Your task to perform on an android device: turn off location history Image 0: 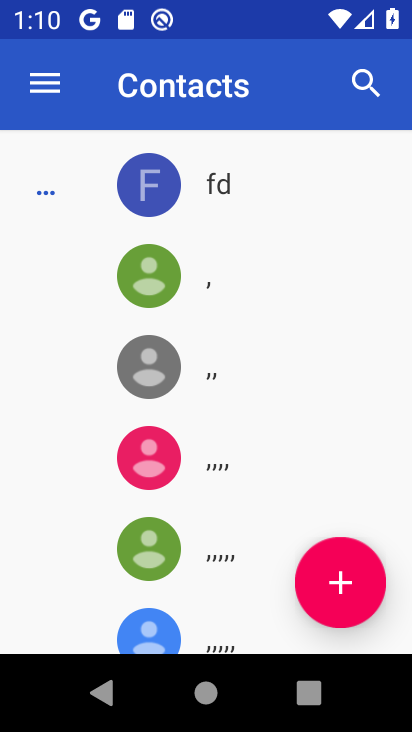
Step 0: press home button
Your task to perform on an android device: turn off location history Image 1: 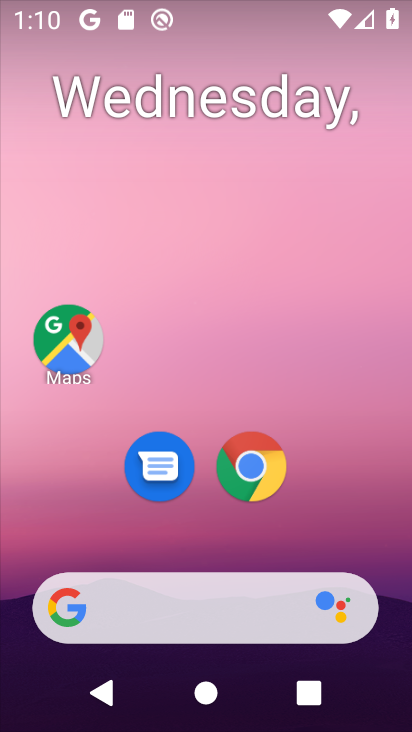
Step 1: drag from (292, 589) to (289, 290)
Your task to perform on an android device: turn off location history Image 2: 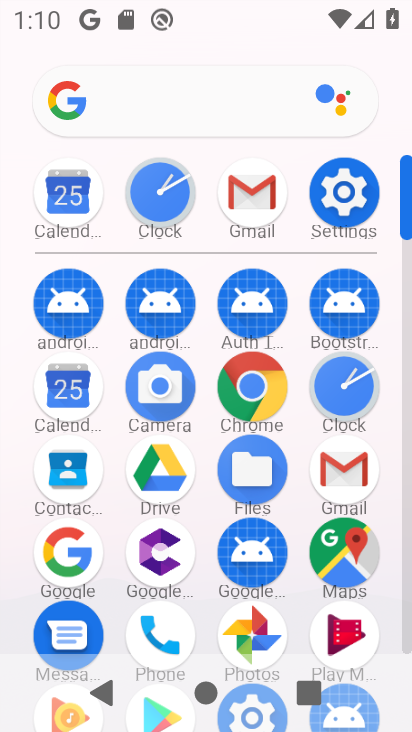
Step 2: click (325, 204)
Your task to perform on an android device: turn off location history Image 3: 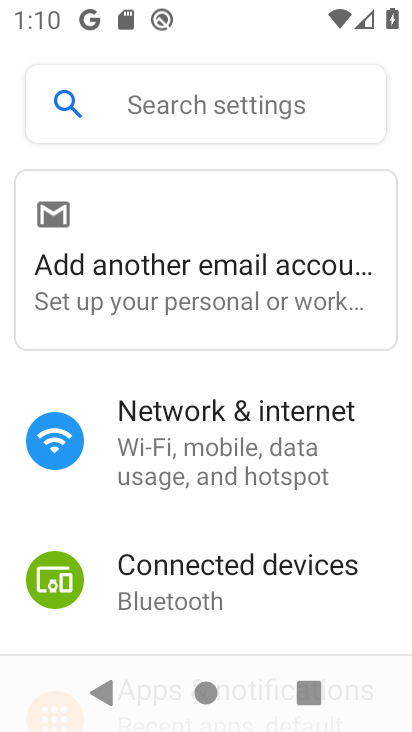
Step 3: drag from (238, 585) to (191, 192)
Your task to perform on an android device: turn off location history Image 4: 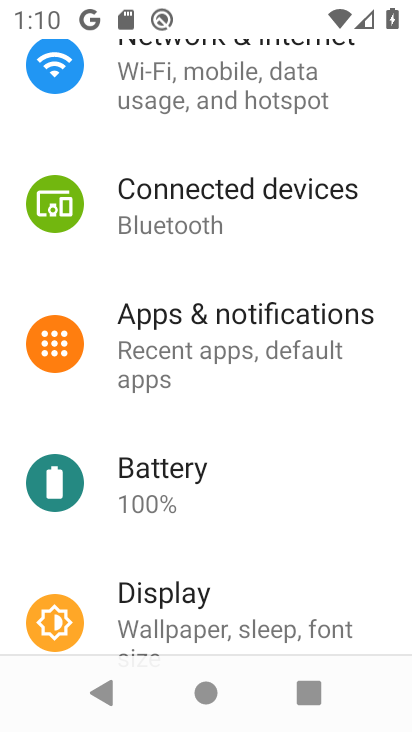
Step 4: drag from (249, 505) to (238, 174)
Your task to perform on an android device: turn off location history Image 5: 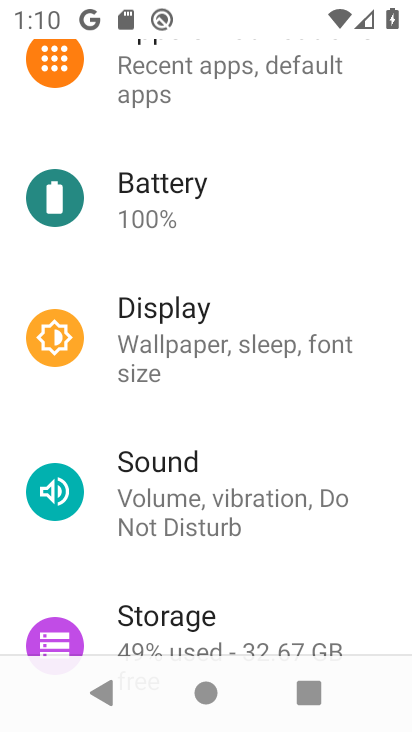
Step 5: drag from (289, 505) to (235, 248)
Your task to perform on an android device: turn off location history Image 6: 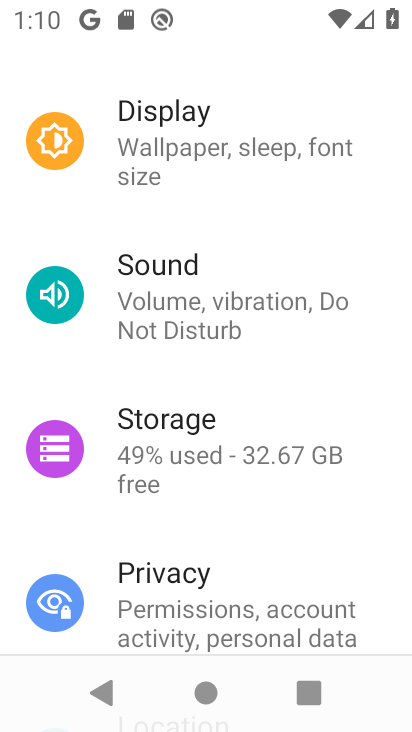
Step 6: drag from (254, 543) to (234, 203)
Your task to perform on an android device: turn off location history Image 7: 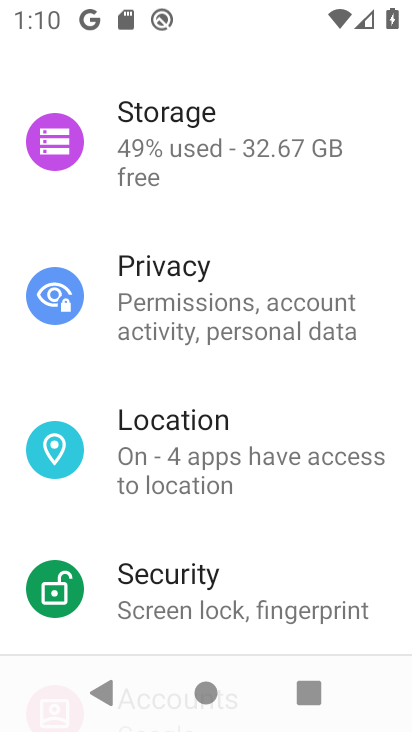
Step 7: click (230, 459)
Your task to perform on an android device: turn off location history Image 8: 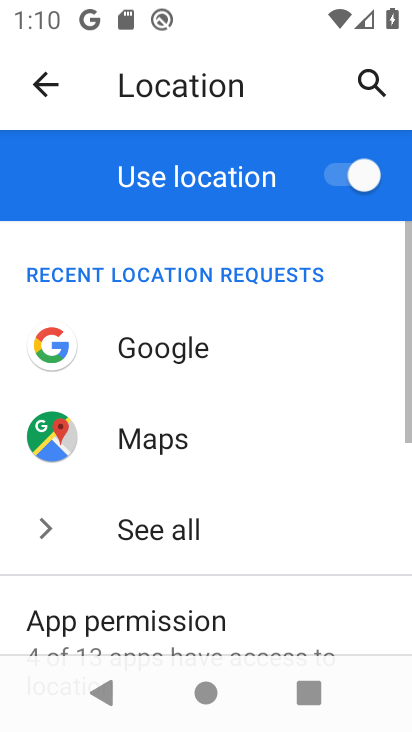
Step 8: drag from (276, 587) to (254, 186)
Your task to perform on an android device: turn off location history Image 9: 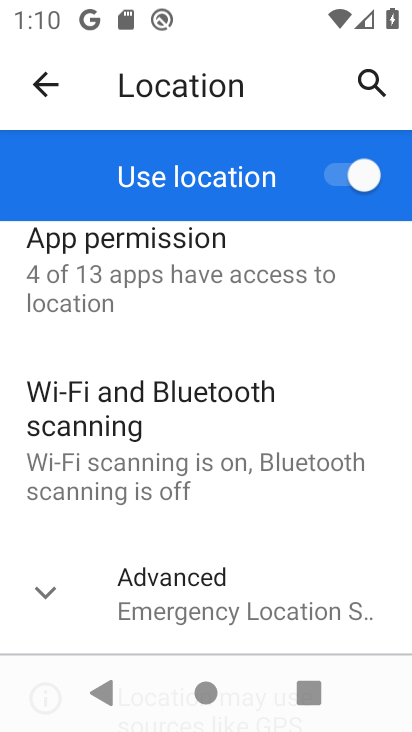
Step 9: click (277, 594)
Your task to perform on an android device: turn off location history Image 10: 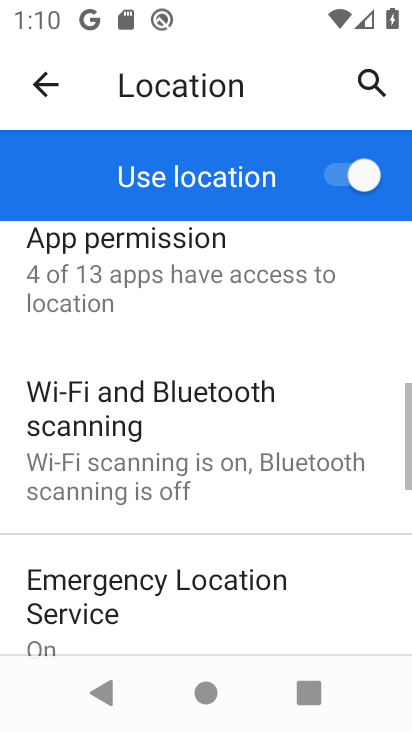
Step 10: task complete